Your task to perform on an android device: Open my contact list Image 0: 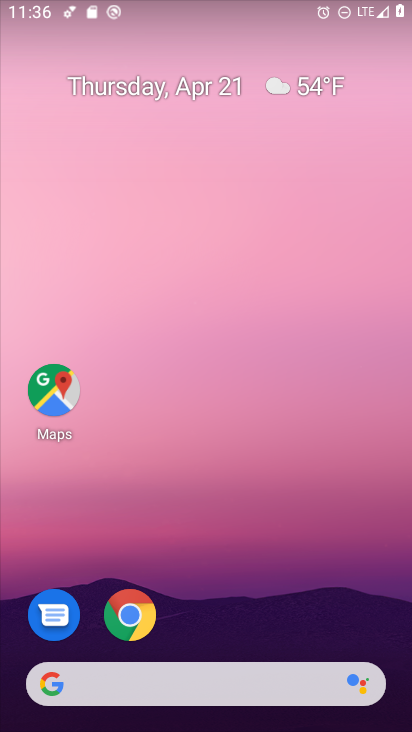
Step 0: drag from (255, 623) to (231, 59)
Your task to perform on an android device: Open my contact list Image 1: 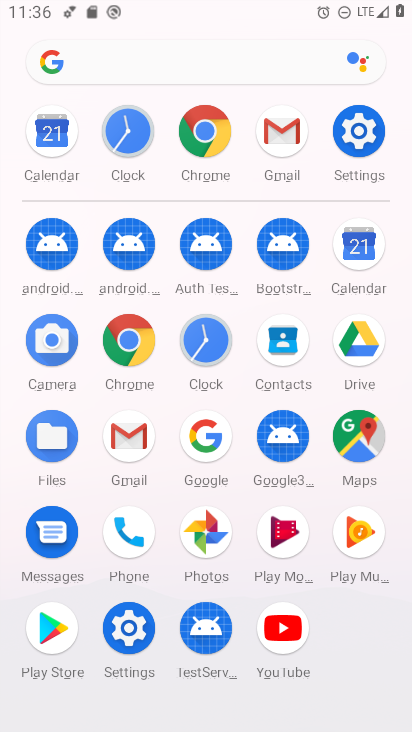
Step 1: click (277, 346)
Your task to perform on an android device: Open my contact list Image 2: 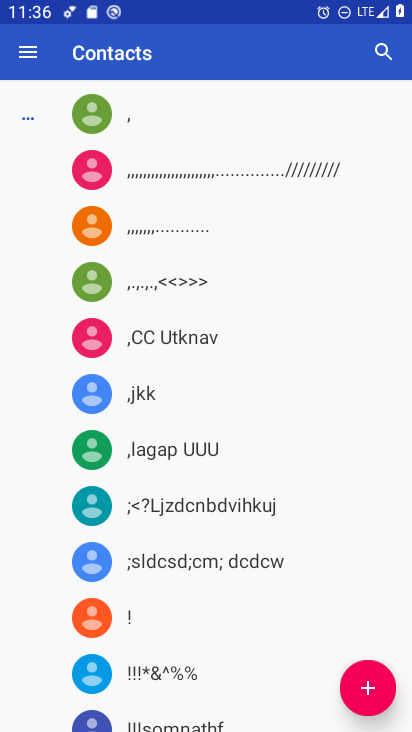
Step 2: task complete